Your task to perform on an android device: turn off notifications settings in the gmail app Image 0: 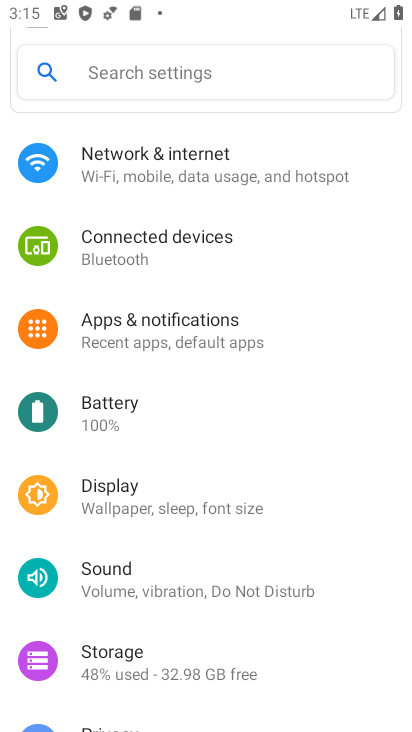
Step 0: press home button
Your task to perform on an android device: turn off notifications settings in the gmail app Image 1: 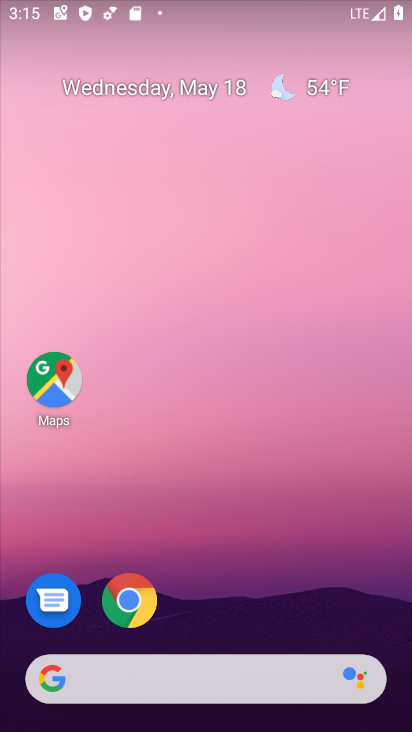
Step 1: drag from (173, 673) to (326, 240)
Your task to perform on an android device: turn off notifications settings in the gmail app Image 2: 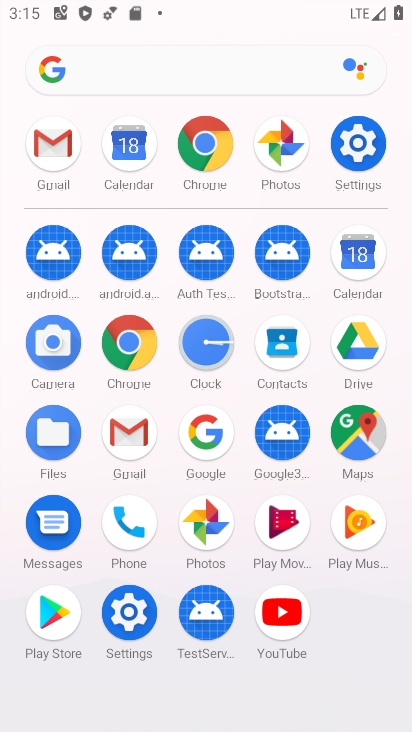
Step 2: click (53, 161)
Your task to perform on an android device: turn off notifications settings in the gmail app Image 3: 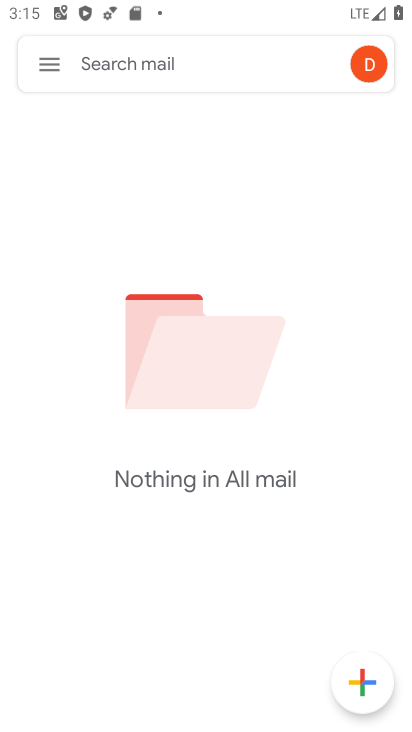
Step 3: click (59, 67)
Your task to perform on an android device: turn off notifications settings in the gmail app Image 4: 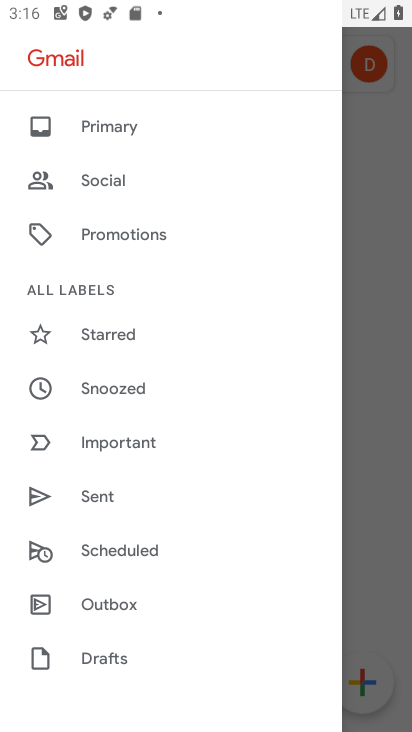
Step 4: drag from (166, 598) to (262, 140)
Your task to perform on an android device: turn off notifications settings in the gmail app Image 5: 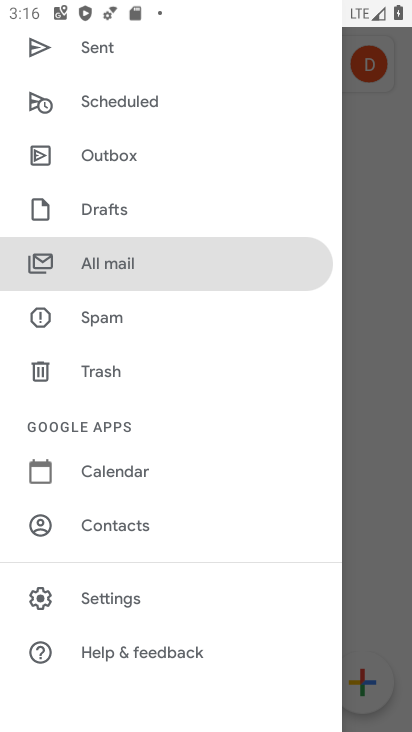
Step 5: click (119, 593)
Your task to perform on an android device: turn off notifications settings in the gmail app Image 6: 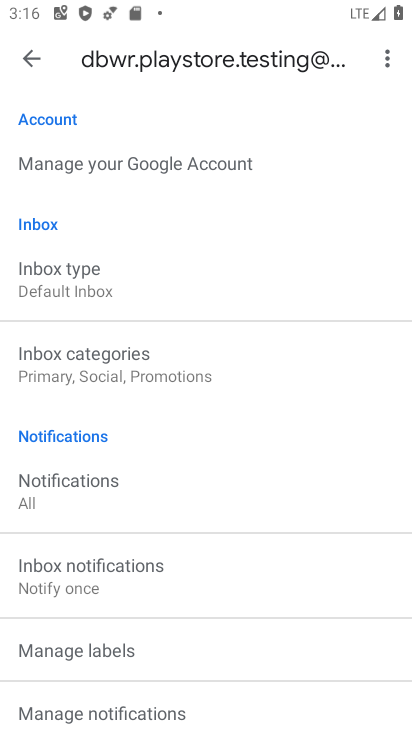
Step 6: click (85, 506)
Your task to perform on an android device: turn off notifications settings in the gmail app Image 7: 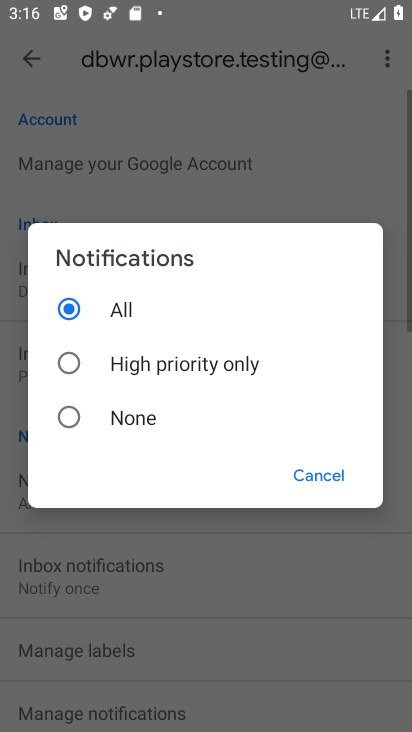
Step 7: click (61, 414)
Your task to perform on an android device: turn off notifications settings in the gmail app Image 8: 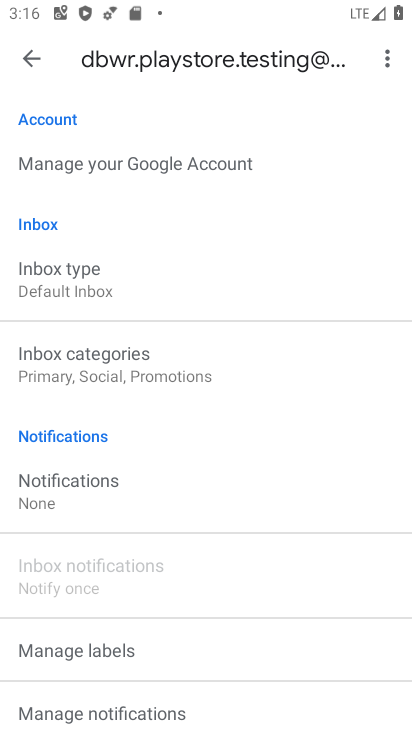
Step 8: task complete